Your task to perform on an android device: turn off wifi Image 0: 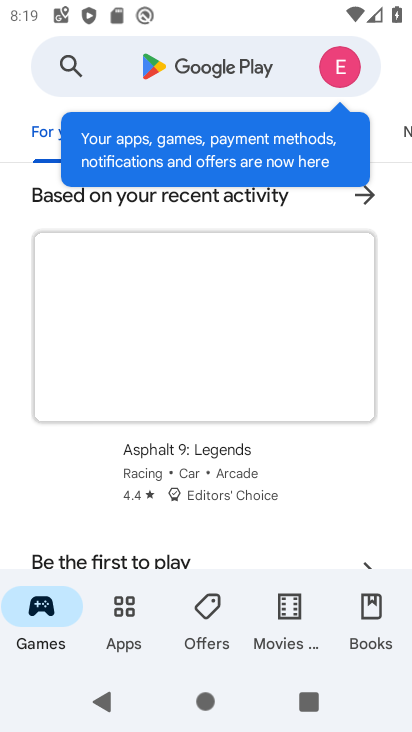
Step 0: press home button
Your task to perform on an android device: turn off wifi Image 1: 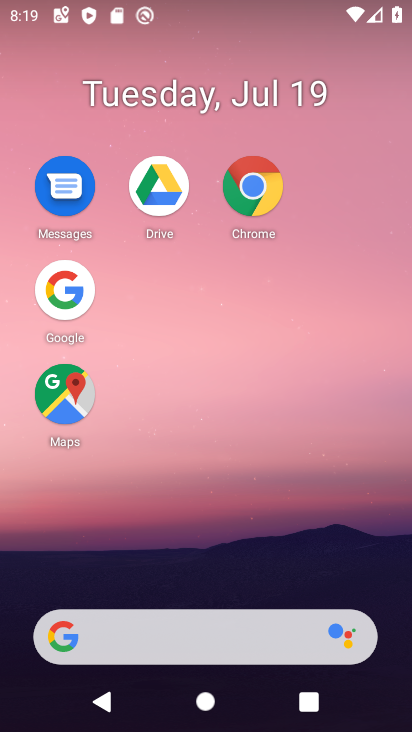
Step 1: drag from (185, 592) to (160, 62)
Your task to perform on an android device: turn off wifi Image 2: 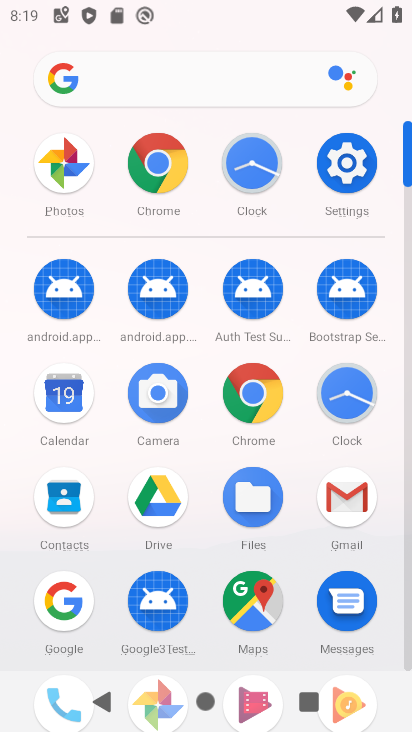
Step 2: click (359, 161)
Your task to perform on an android device: turn off wifi Image 3: 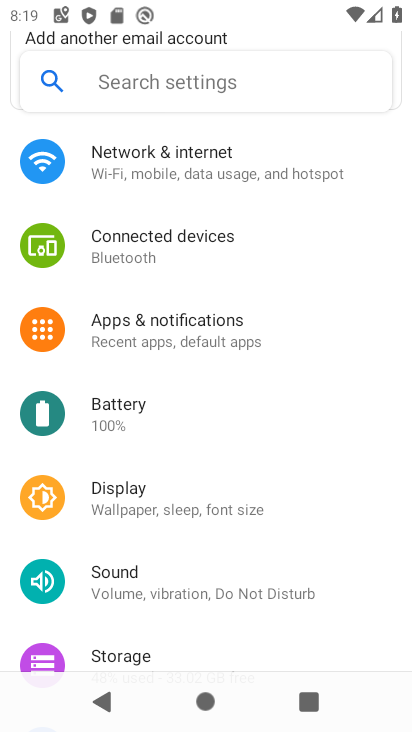
Step 3: click (204, 151)
Your task to perform on an android device: turn off wifi Image 4: 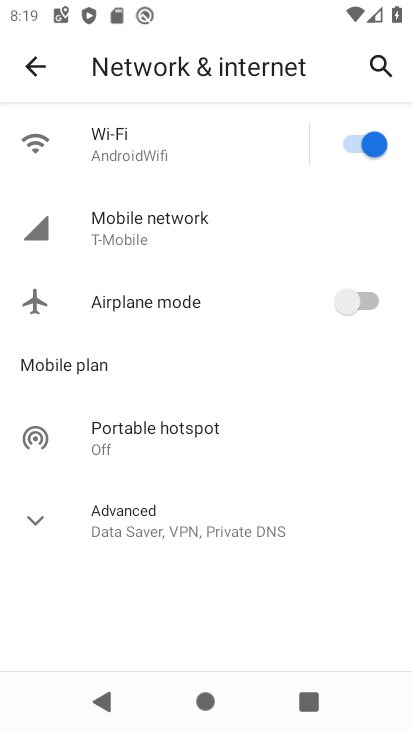
Step 4: click (350, 145)
Your task to perform on an android device: turn off wifi Image 5: 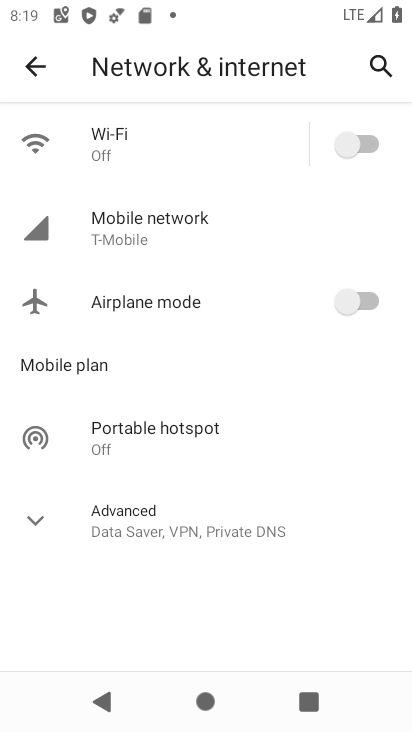
Step 5: task complete